Your task to perform on an android device: turn on notifications settings in the gmail app Image 0: 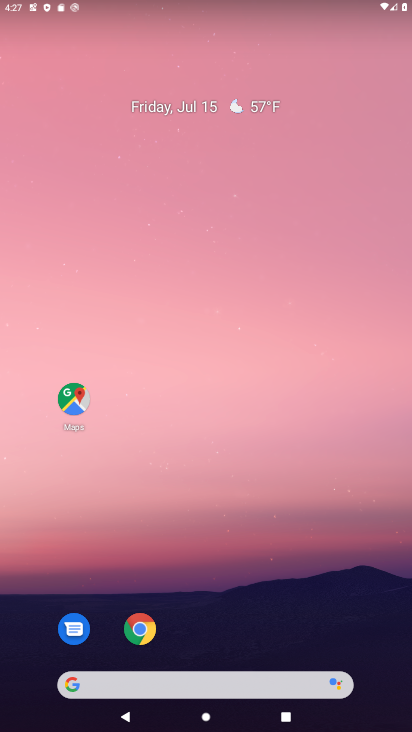
Step 0: press home button
Your task to perform on an android device: turn on notifications settings in the gmail app Image 1: 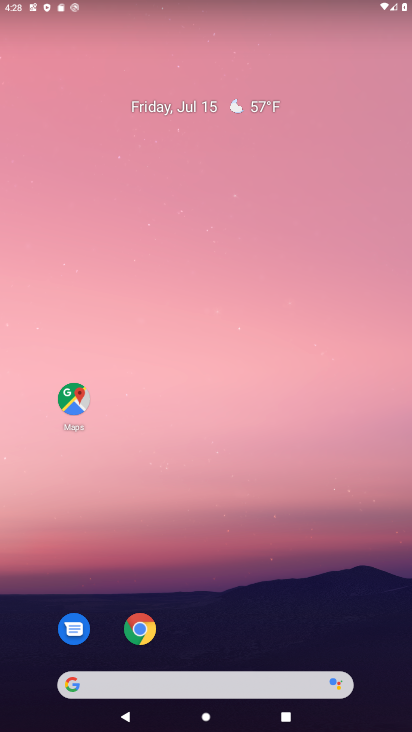
Step 1: drag from (301, 559) to (380, 2)
Your task to perform on an android device: turn on notifications settings in the gmail app Image 2: 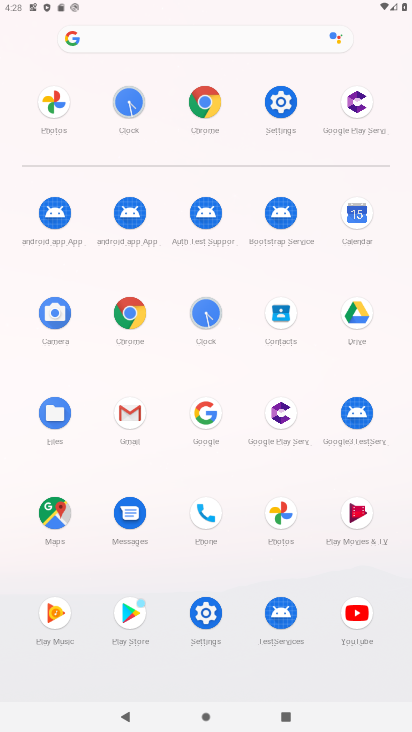
Step 2: drag from (133, 500) to (127, 407)
Your task to perform on an android device: turn on notifications settings in the gmail app Image 3: 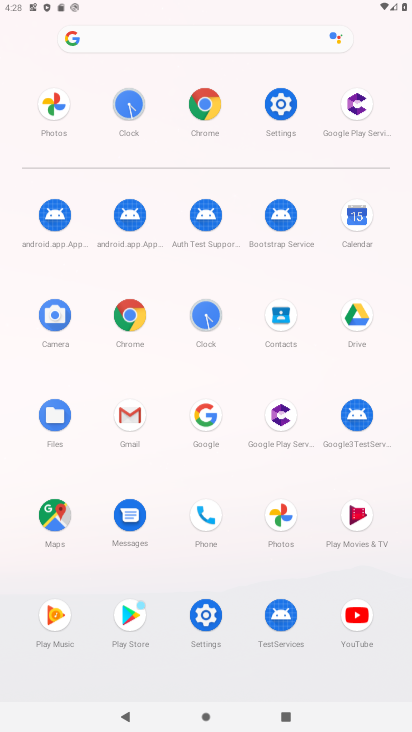
Step 3: click (127, 407)
Your task to perform on an android device: turn on notifications settings in the gmail app Image 4: 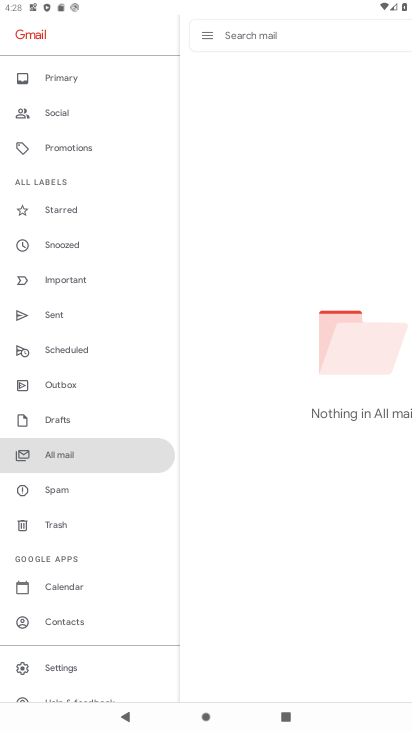
Step 4: click (60, 665)
Your task to perform on an android device: turn on notifications settings in the gmail app Image 5: 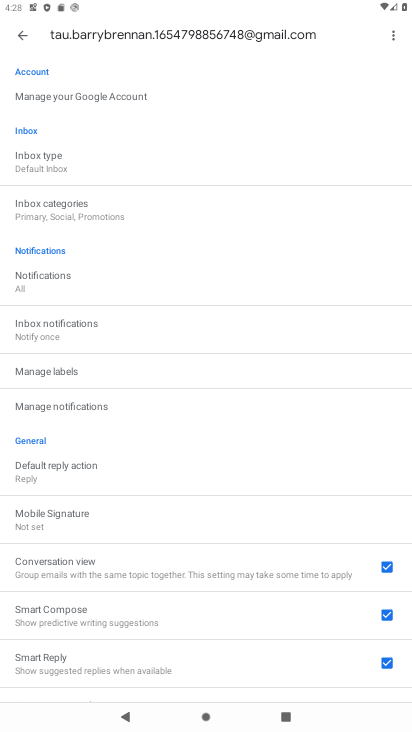
Step 5: click (62, 404)
Your task to perform on an android device: turn on notifications settings in the gmail app Image 6: 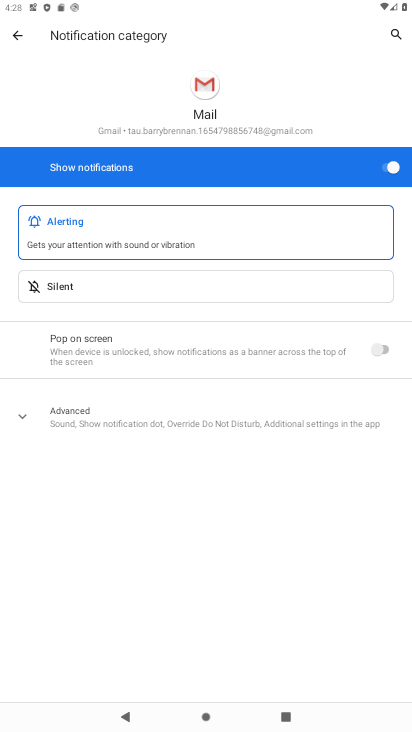
Step 6: task complete